Your task to perform on an android device: turn on javascript in the chrome app Image 0: 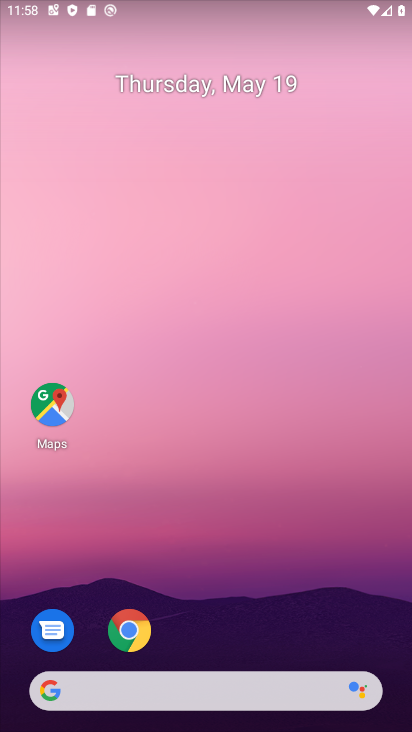
Step 0: click (130, 630)
Your task to perform on an android device: turn on javascript in the chrome app Image 1: 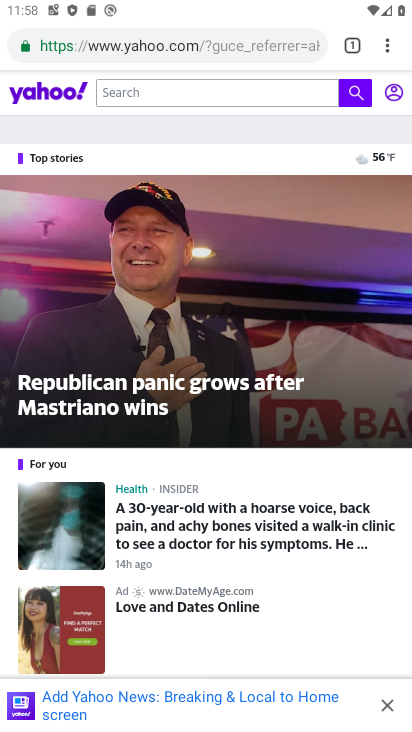
Step 1: click (387, 46)
Your task to perform on an android device: turn on javascript in the chrome app Image 2: 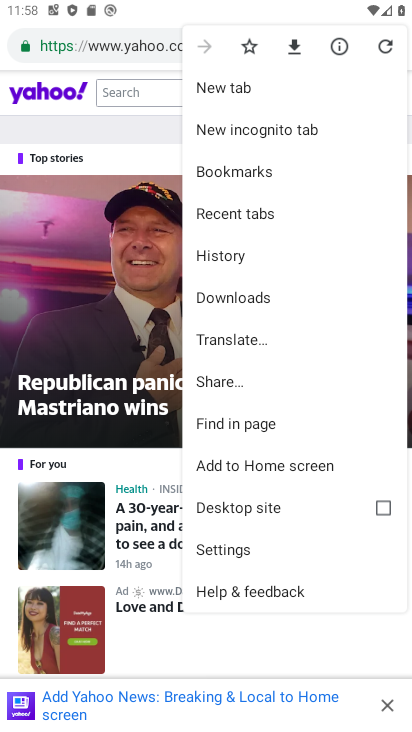
Step 2: click (235, 555)
Your task to perform on an android device: turn on javascript in the chrome app Image 3: 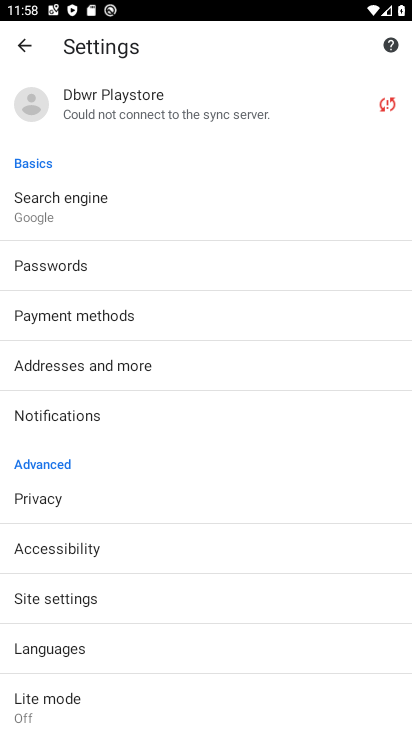
Step 3: drag from (110, 632) to (143, 518)
Your task to perform on an android device: turn on javascript in the chrome app Image 4: 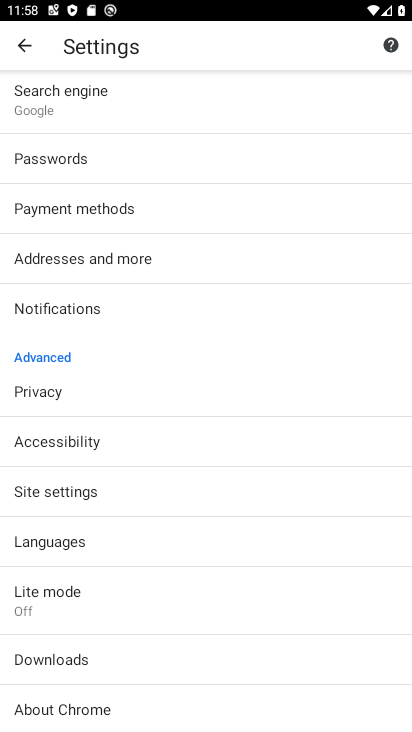
Step 4: click (82, 491)
Your task to perform on an android device: turn on javascript in the chrome app Image 5: 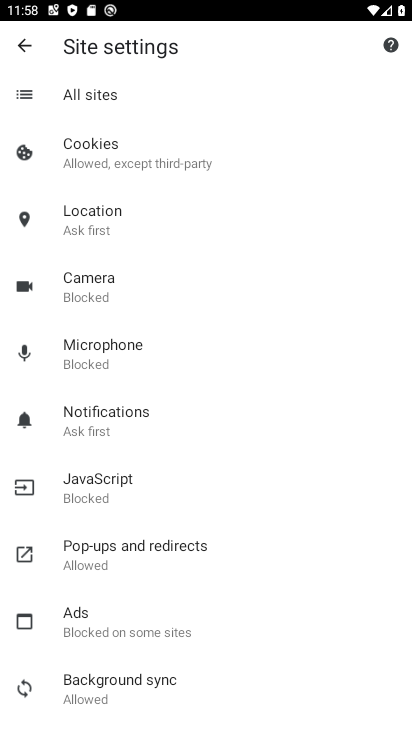
Step 5: click (97, 497)
Your task to perform on an android device: turn on javascript in the chrome app Image 6: 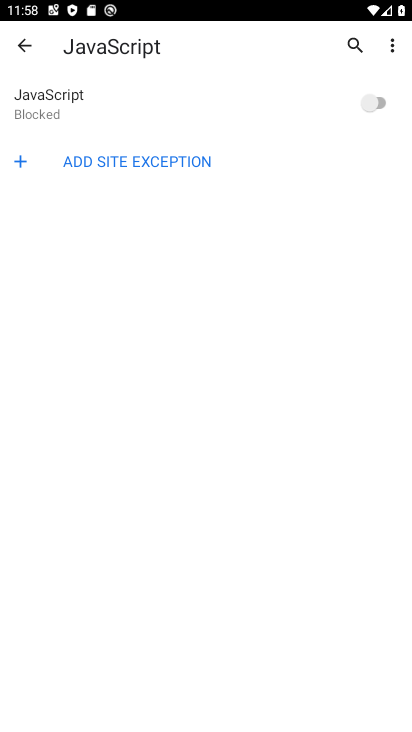
Step 6: click (375, 98)
Your task to perform on an android device: turn on javascript in the chrome app Image 7: 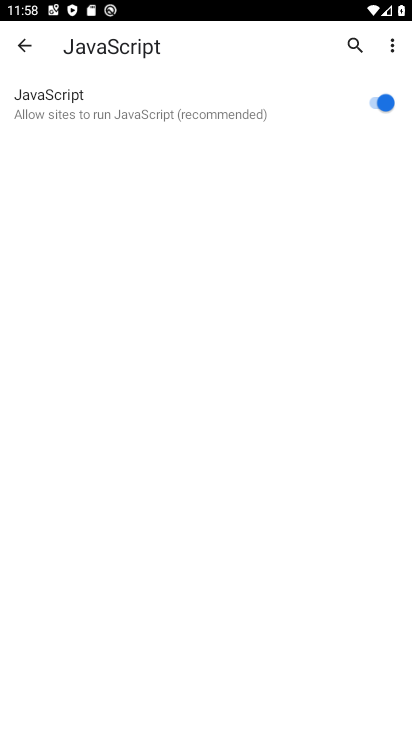
Step 7: task complete